Your task to perform on an android device: turn on priority inbox in the gmail app Image 0: 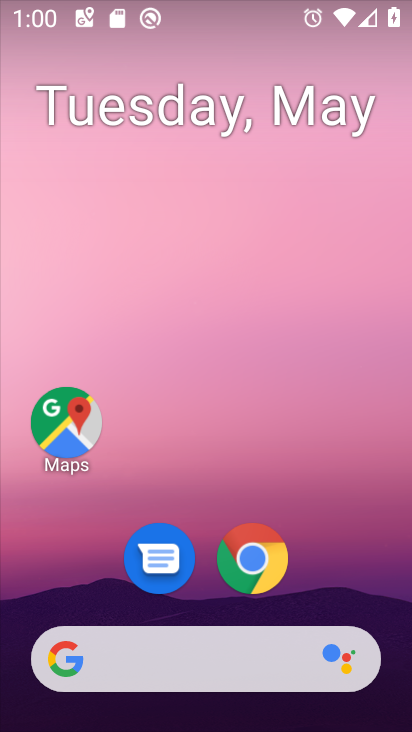
Step 0: drag from (367, 595) to (250, 39)
Your task to perform on an android device: turn on priority inbox in the gmail app Image 1: 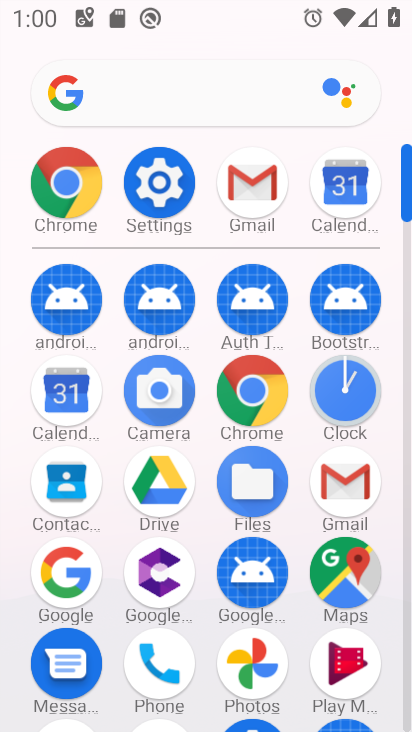
Step 1: click (261, 202)
Your task to perform on an android device: turn on priority inbox in the gmail app Image 2: 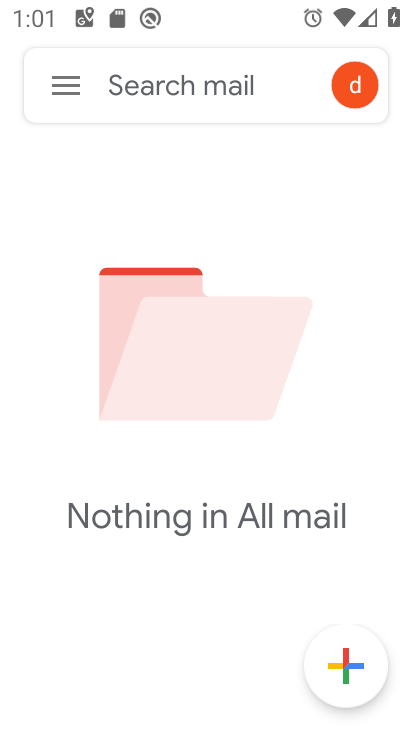
Step 2: click (60, 99)
Your task to perform on an android device: turn on priority inbox in the gmail app Image 3: 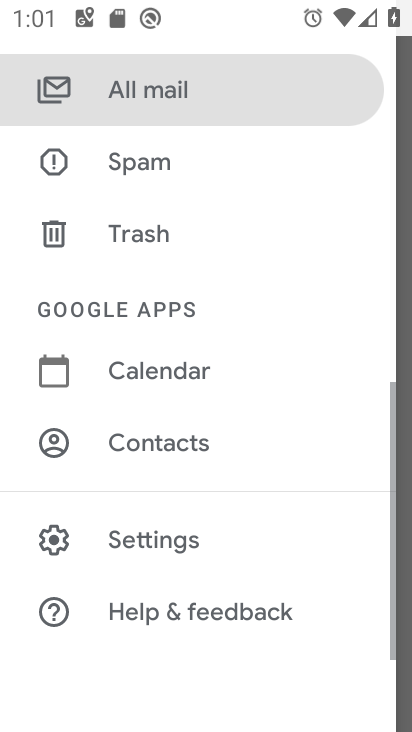
Step 3: click (171, 522)
Your task to perform on an android device: turn on priority inbox in the gmail app Image 4: 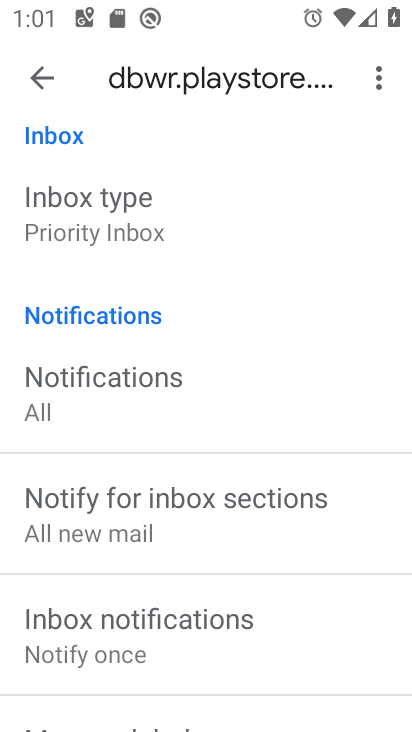
Step 4: task complete